Your task to perform on an android device: install app "Adobe Acrobat Reader: Edit PDF" Image 0: 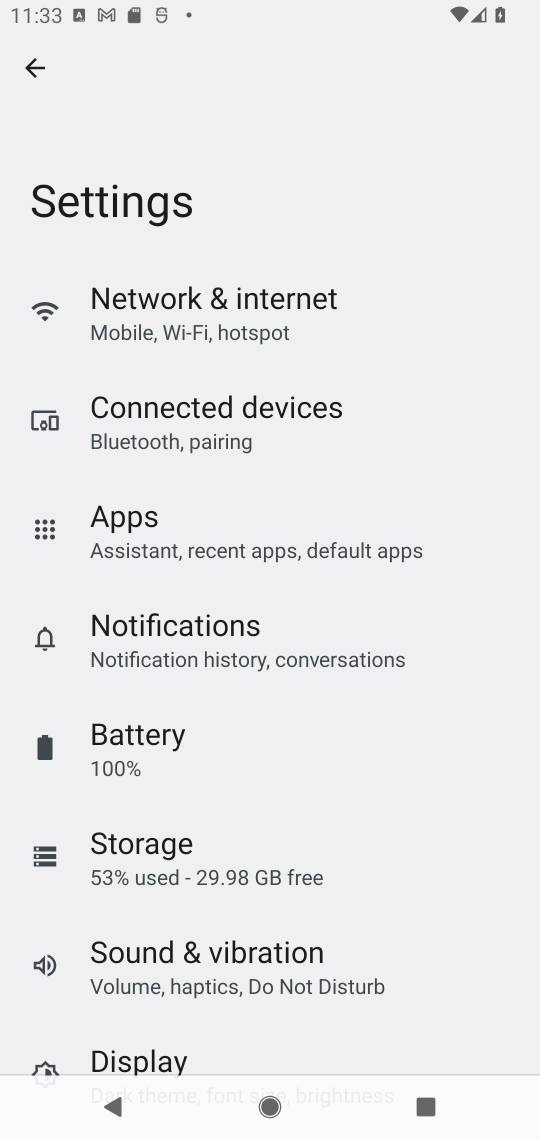
Step 0: press home button
Your task to perform on an android device: install app "Adobe Acrobat Reader: Edit PDF" Image 1: 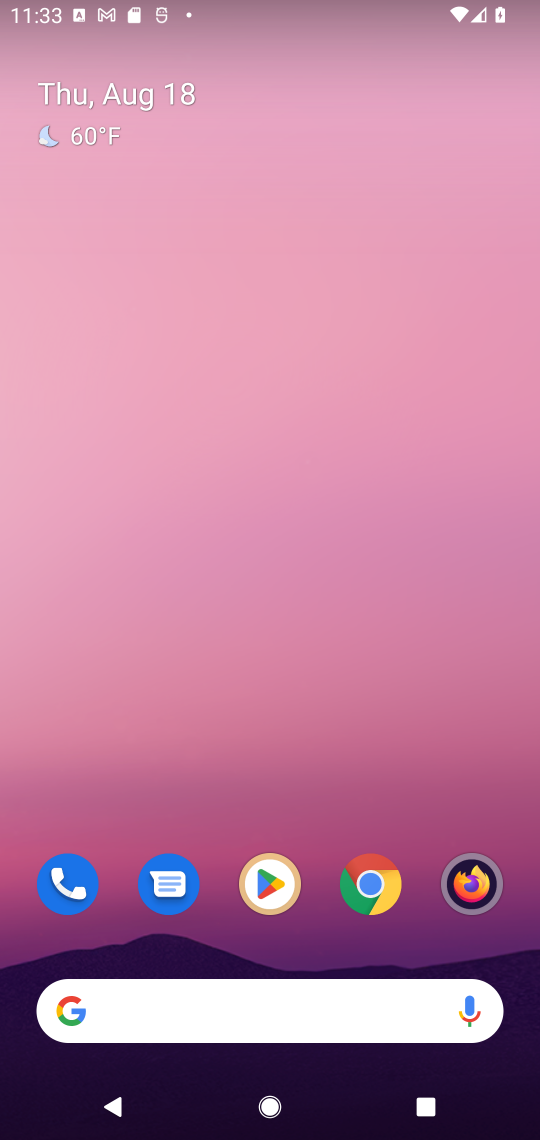
Step 1: drag from (231, 1002) to (261, 96)
Your task to perform on an android device: install app "Adobe Acrobat Reader: Edit PDF" Image 2: 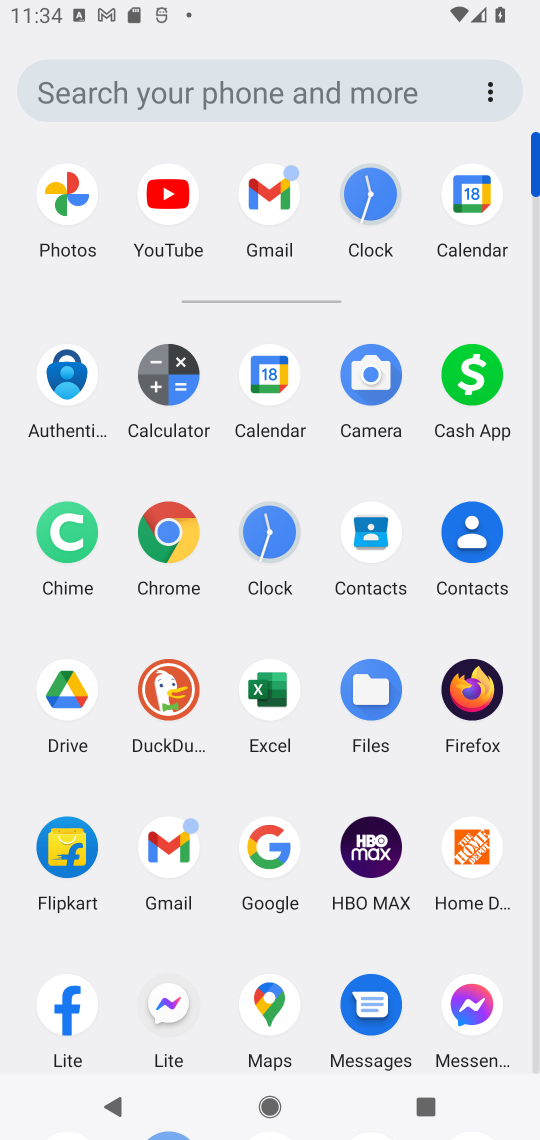
Step 2: drag from (226, 981) to (236, 500)
Your task to perform on an android device: install app "Adobe Acrobat Reader: Edit PDF" Image 3: 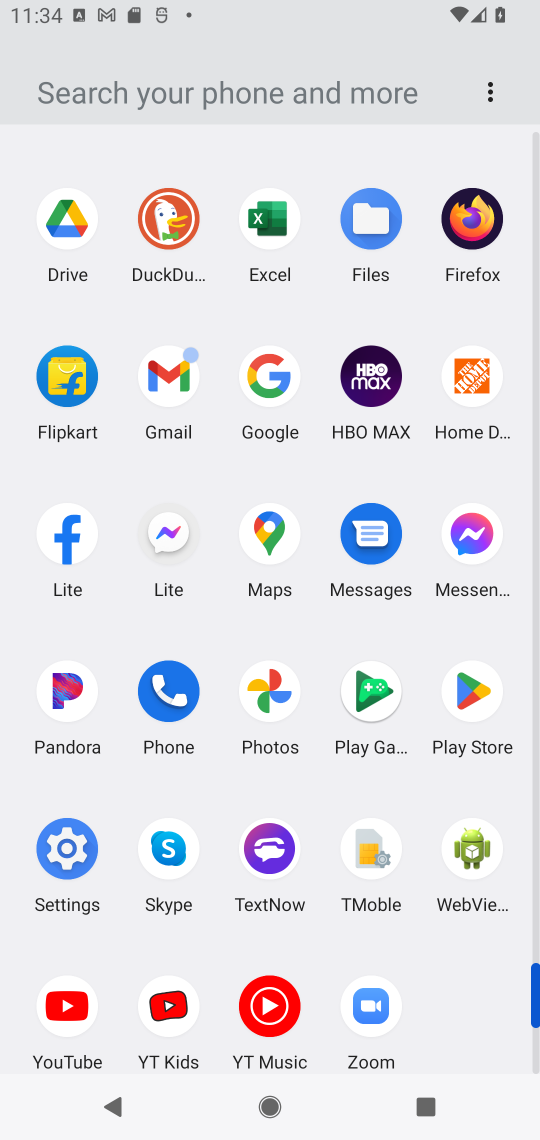
Step 3: click (477, 692)
Your task to perform on an android device: install app "Adobe Acrobat Reader: Edit PDF" Image 4: 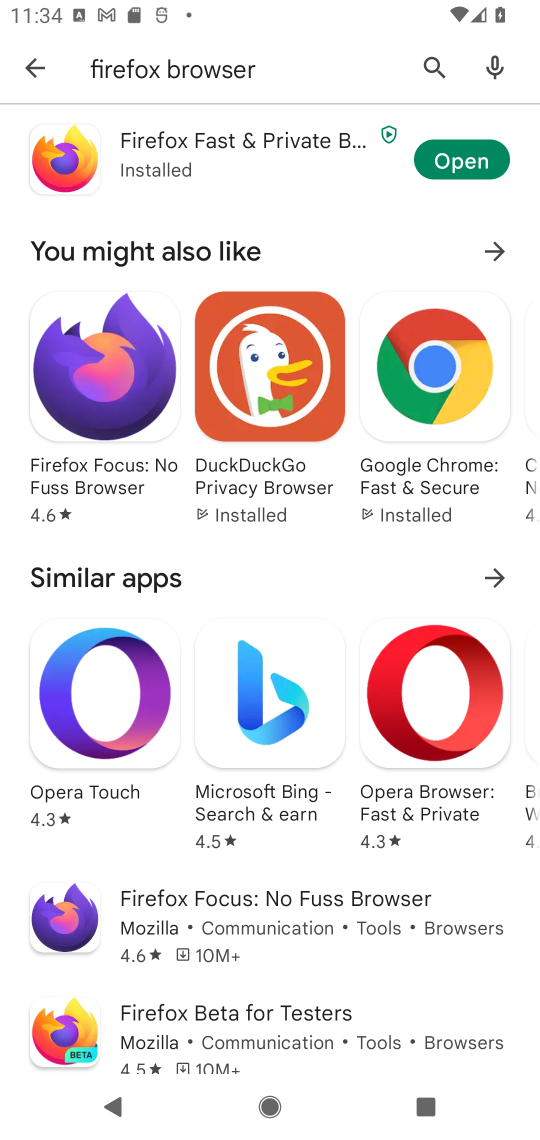
Step 4: press back button
Your task to perform on an android device: install app "Adobe Acrobat Reader: Edit PDF" Image 5: 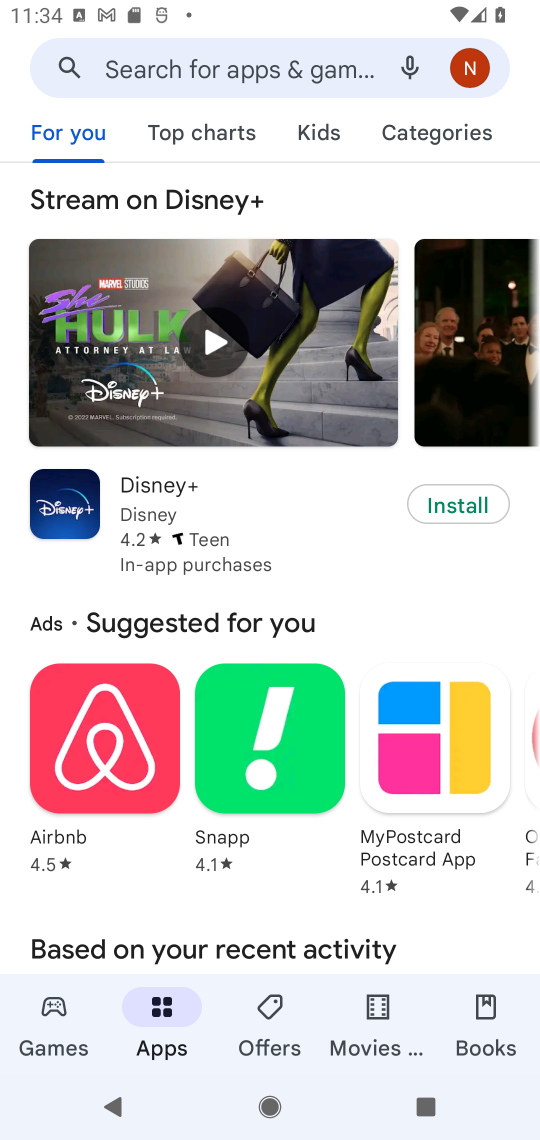
Step 5: click (280, 60)
Your task to perform on an android device: install app "Adobe Acrobat Reader: Edit PDF" Image 6: 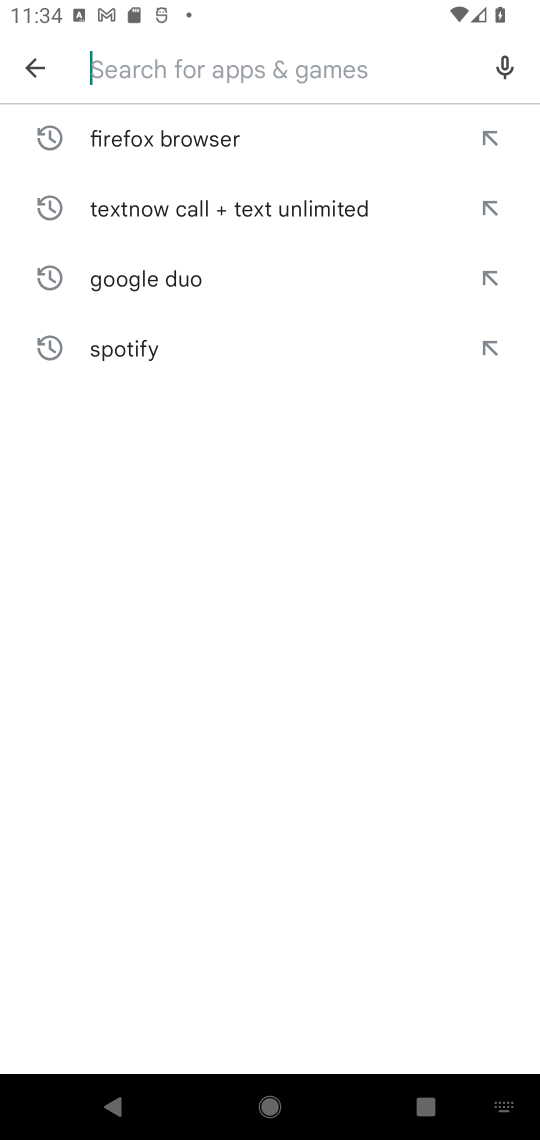
Step 6: type "Adobe Acrobat Reader: Edit PDF"
Your task to perform on an android device: install app "Adobe Acrobat Reader: Edit PDF" Image 7: 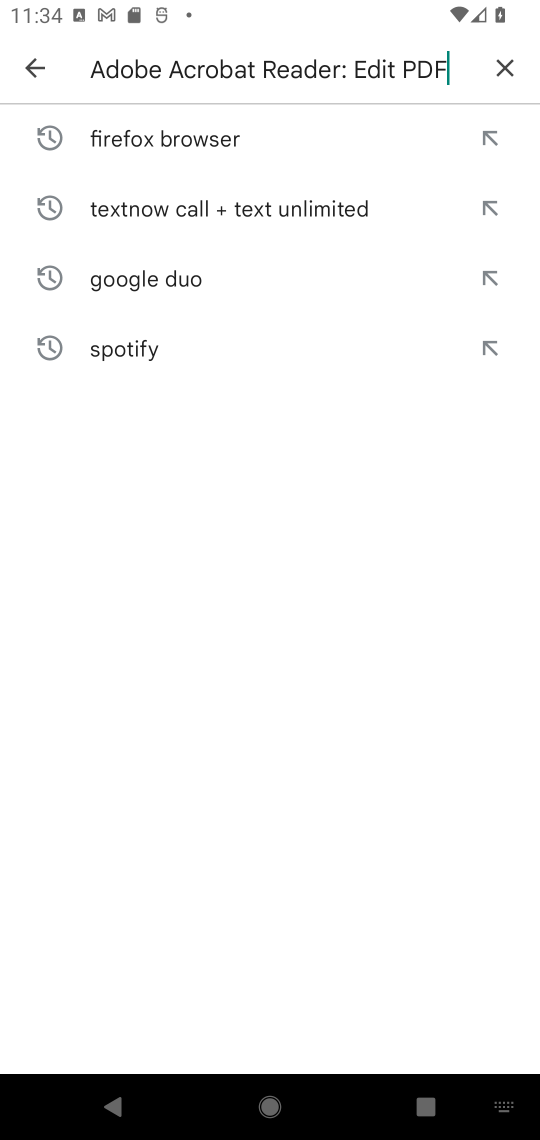
Step 7: type ""
Your task to perform on an android device: install app "Adobe Acrobat Reader: Edit PDF" Image 8: 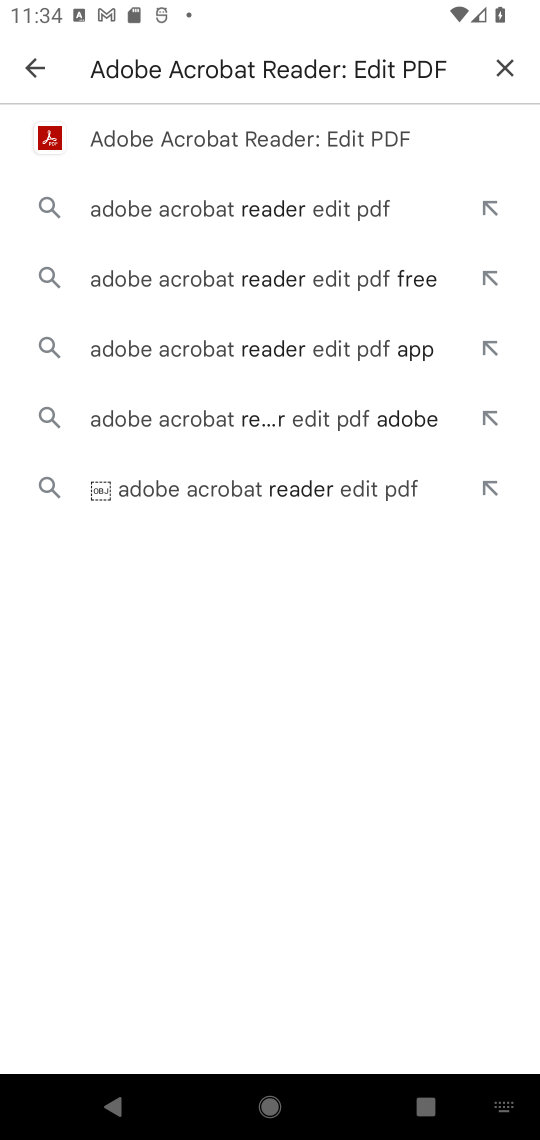
Step 8: click (261, 137)
Your task to perform on an android device: install app "Adobe Acrobat Reader: Edit PDF" Image 9: 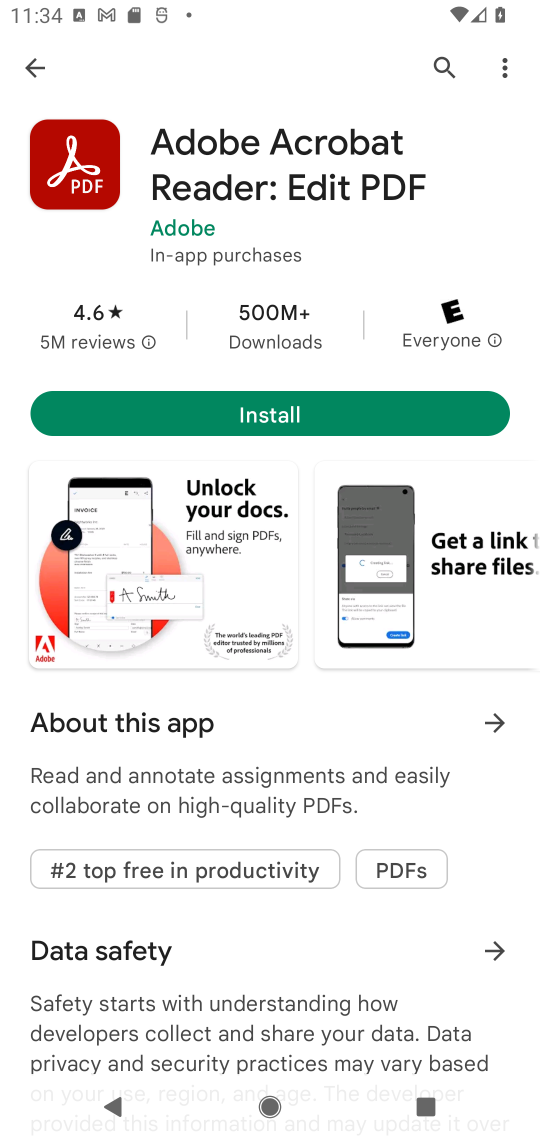
Step 9: click (246, 415)
Your task to perform on an android device: install app "Adobe Acrobat Reader: Edit PDF" Image 10: 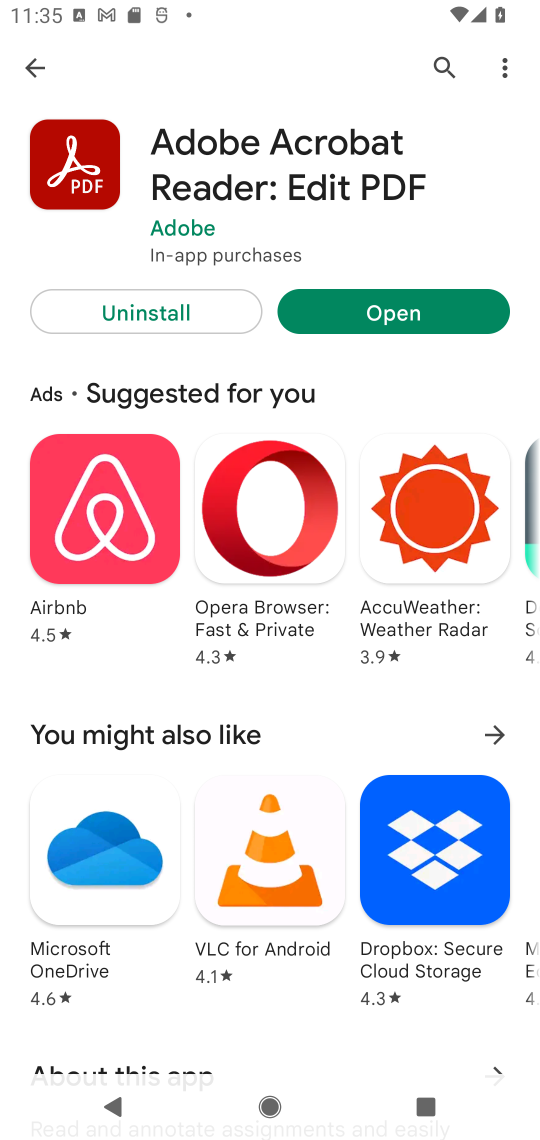
Step 10: task complete